Your task to perform on an android device: allow notifications from all sites in the chrome app Image 0: 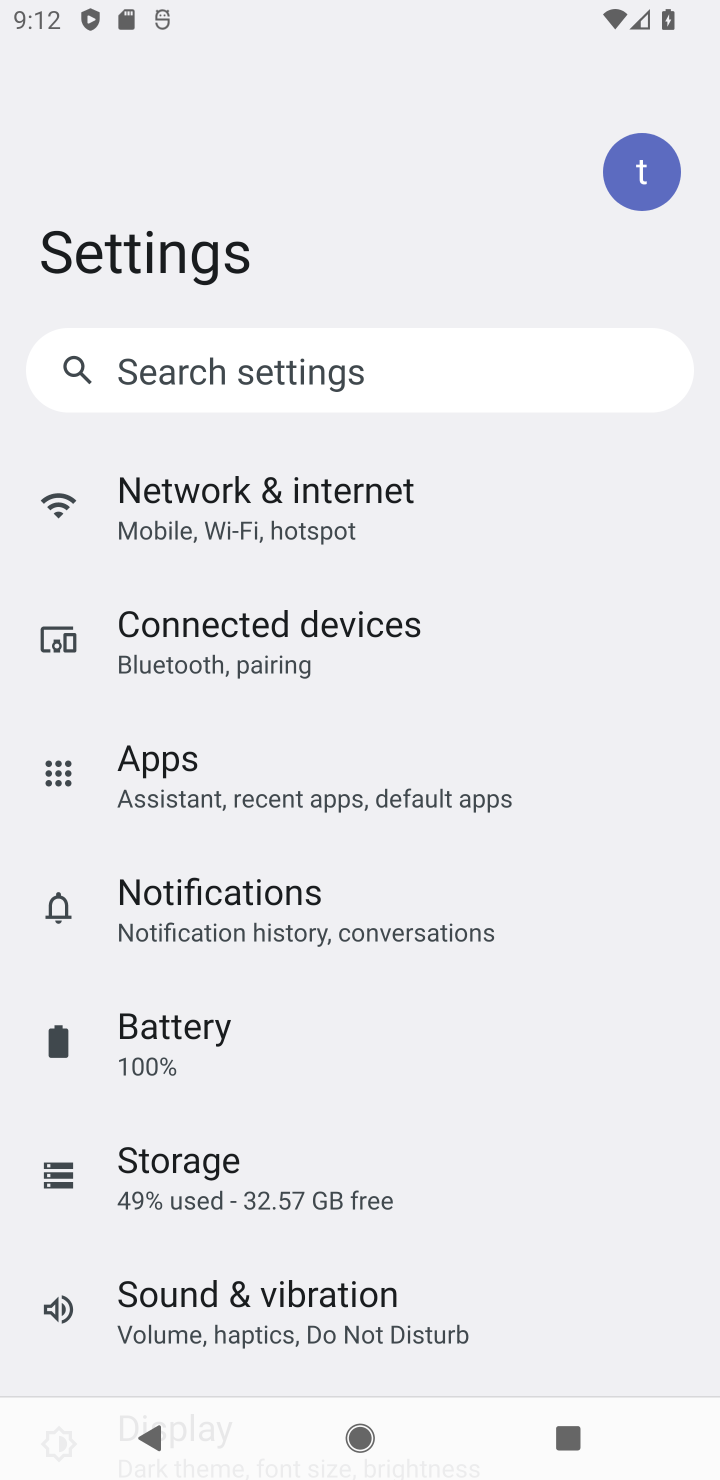
Step 0: press home button
Your task to perform on an android device: allow notifications from all sites in the chrome app Image 1: 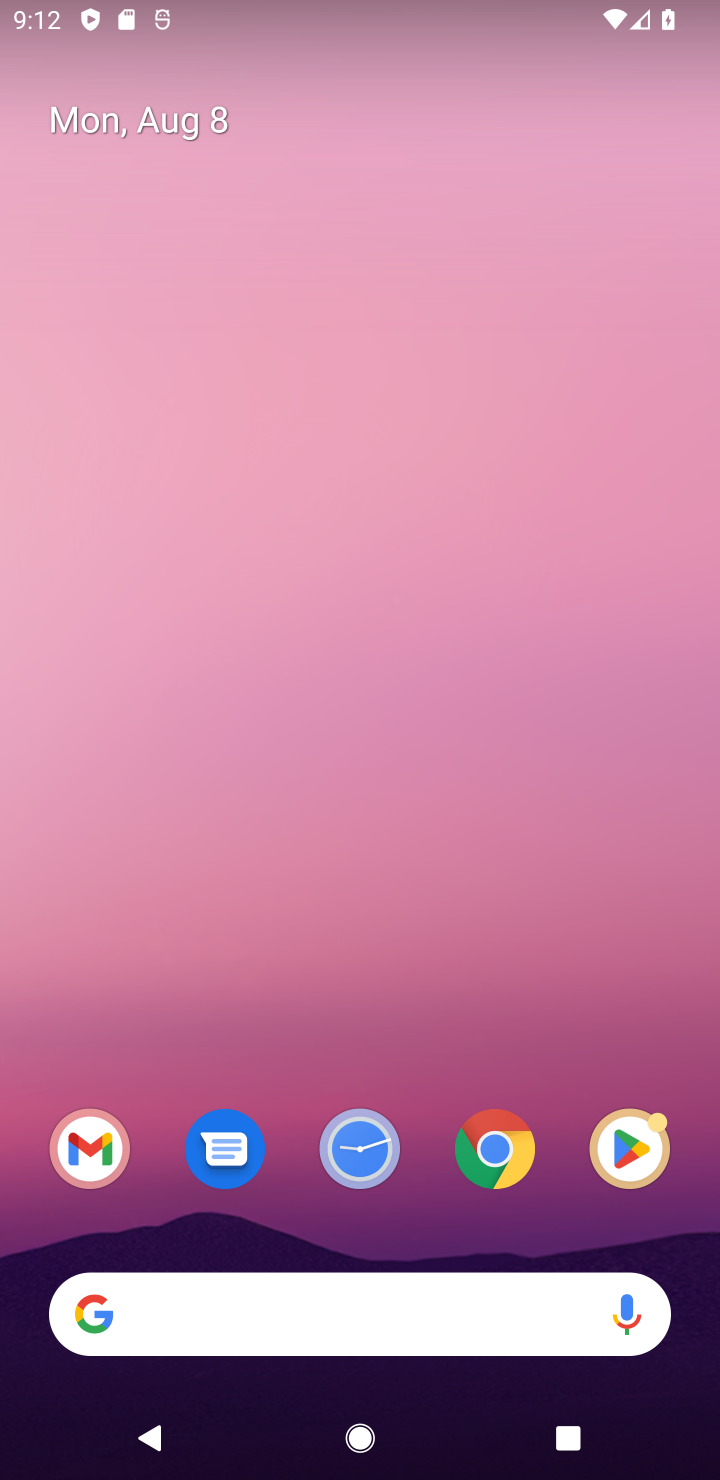
Step 1: click (506, 1150)
Your task to perform on an android device: allow notifications from all sites in the chrome app Image 2: 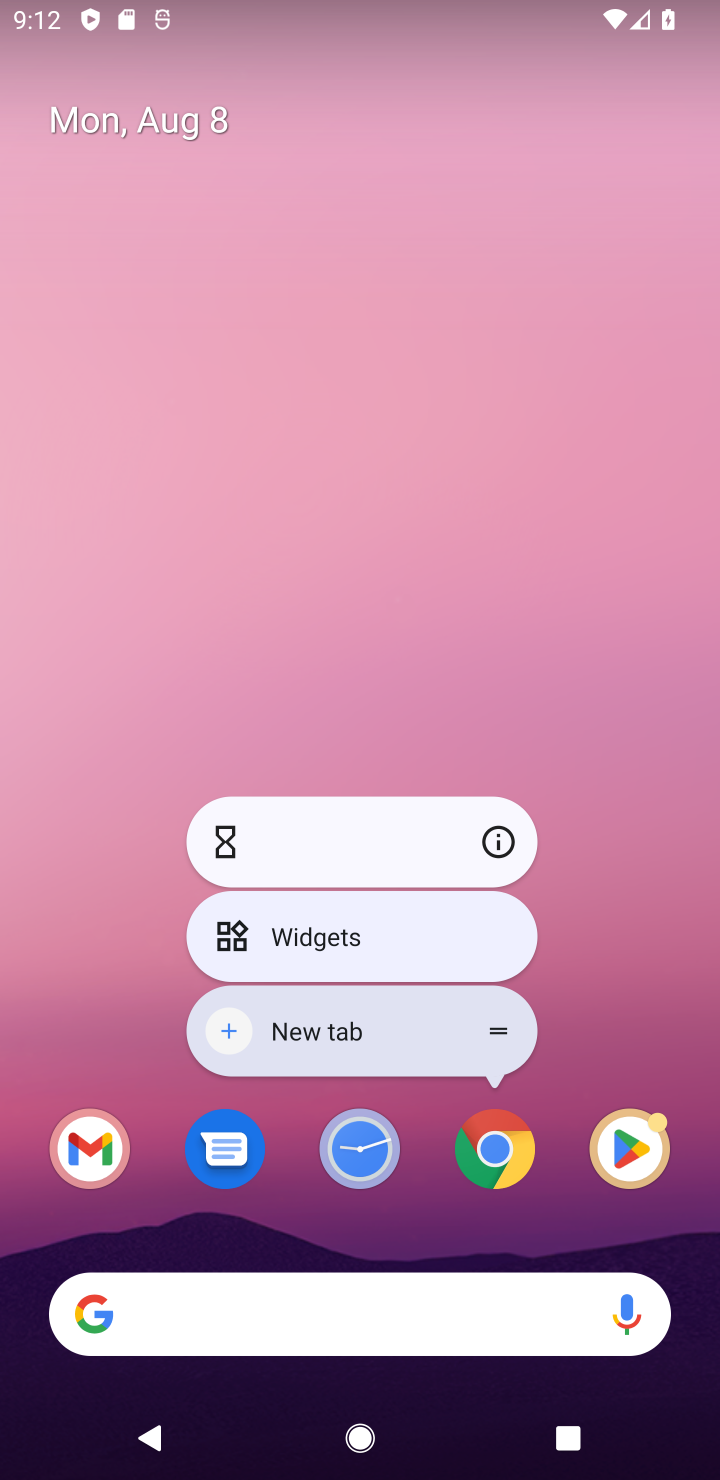
Step 2: click (504, 1148)
Your task to perform on an android device: allow notifications from all sites in the chrome app Image 3: 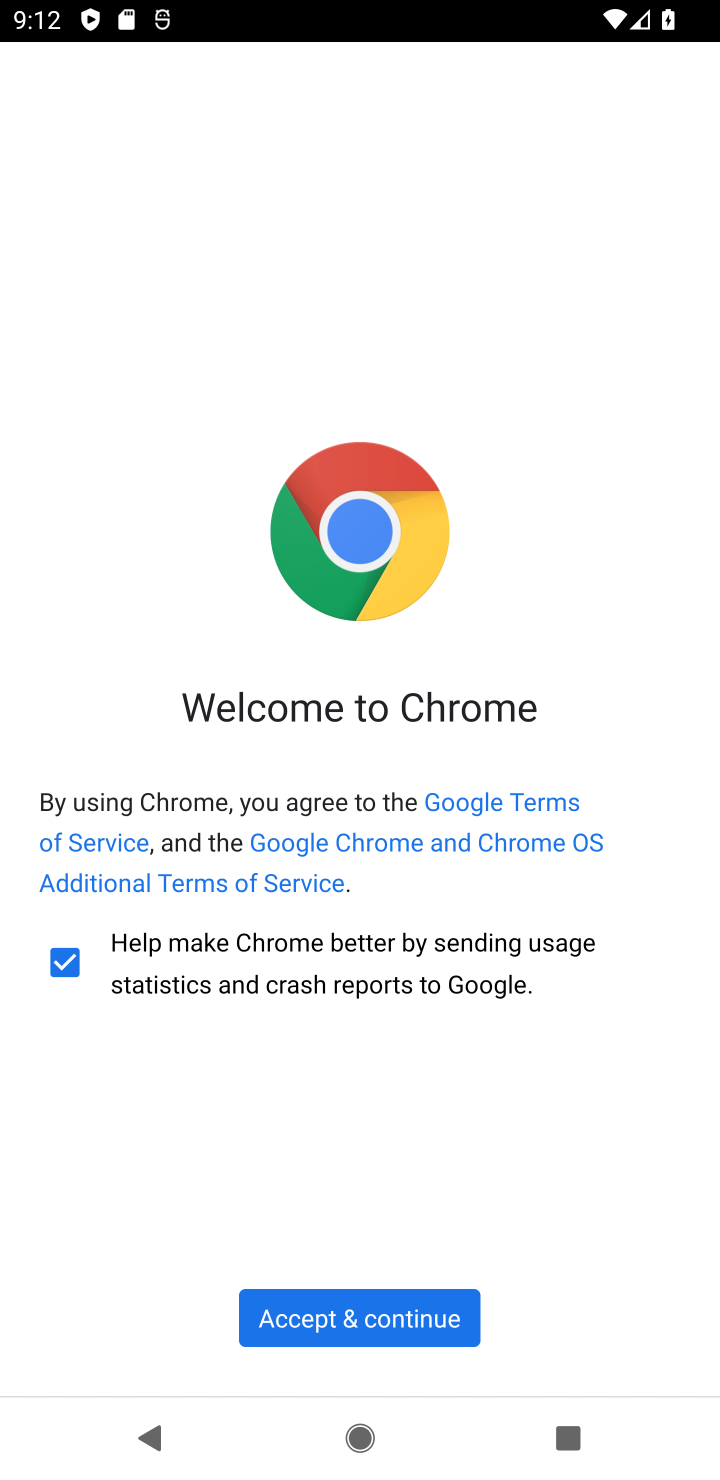
Step 3: click (364, 1307)
Your task to perform on an android device: allow notifications from all sites in the chrome app Image 4: 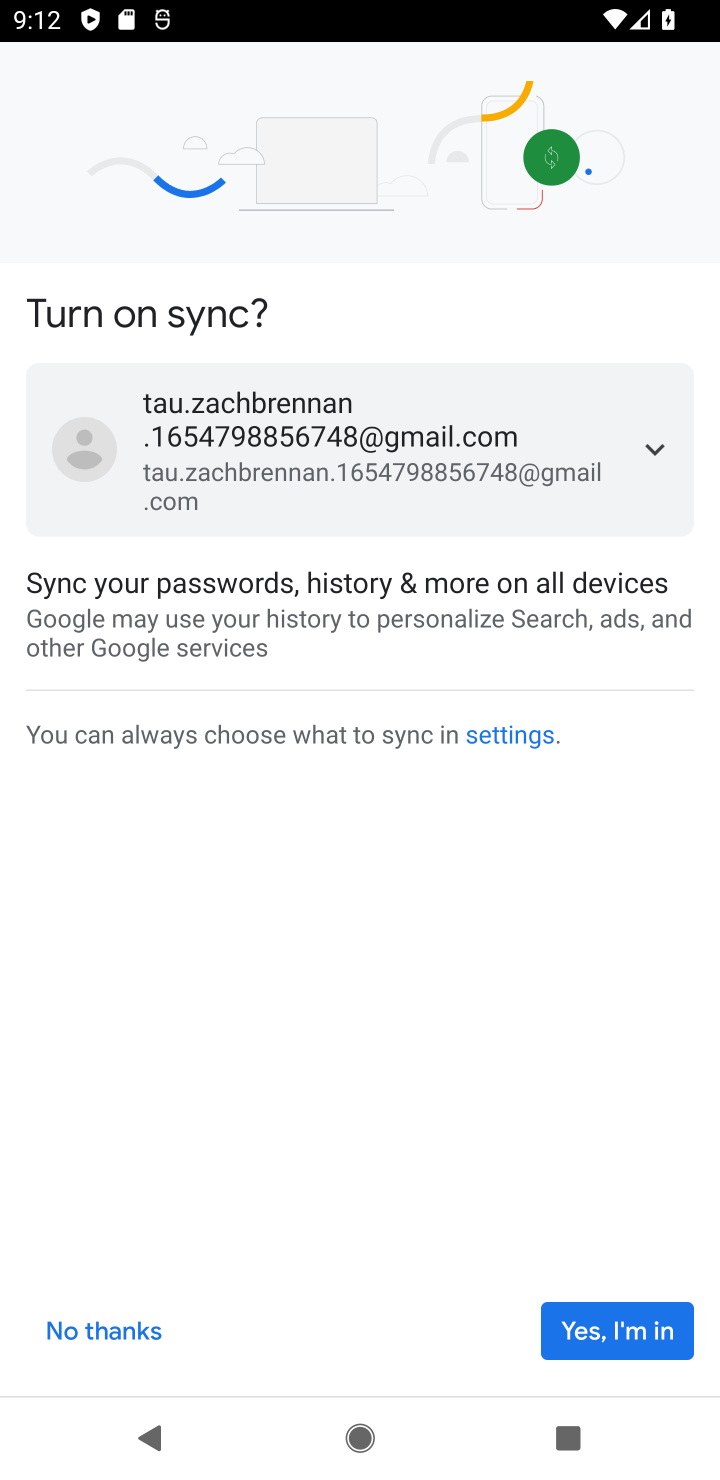
Step 4: click (617, 1320)
Your task to perform on an android device: allow notifications from all sites in the chrome app Image 5: 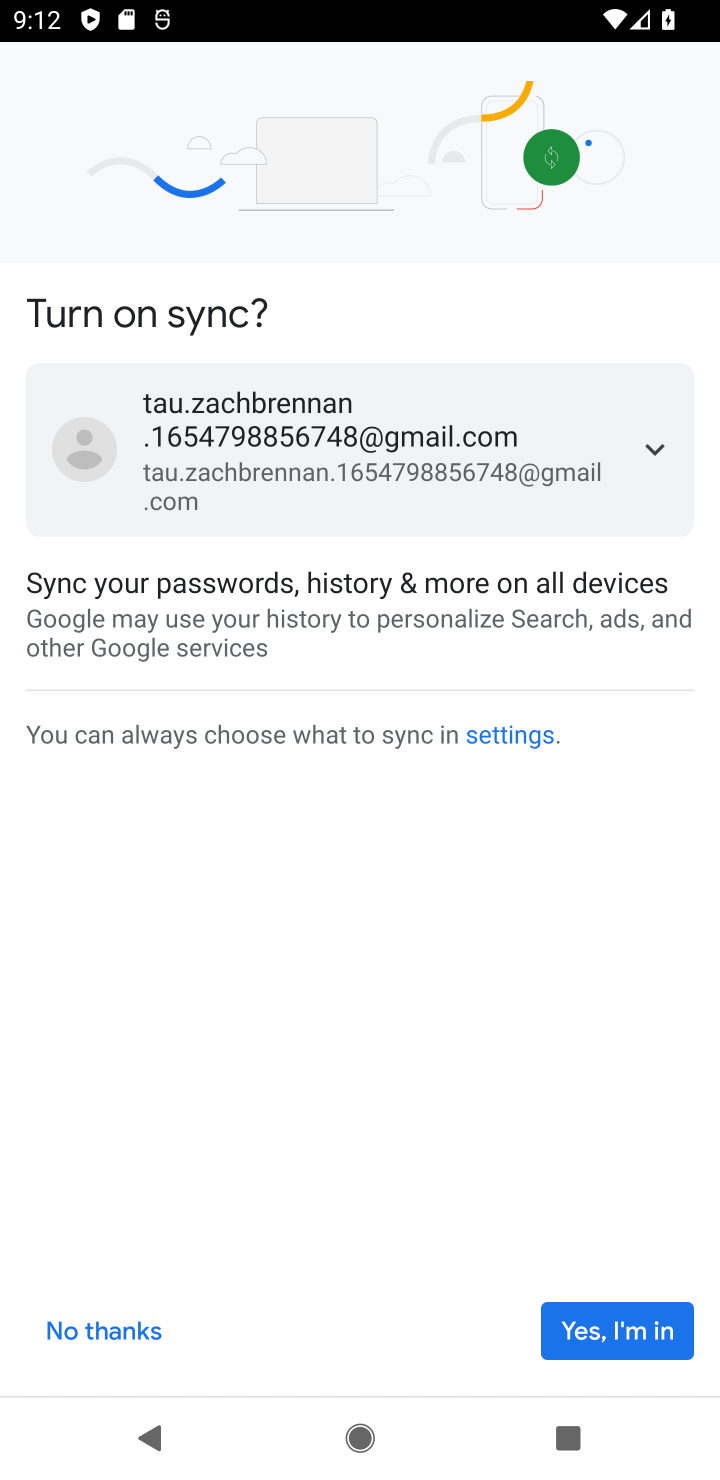
Step 5: click (573, 1323)
Your task to perform on an android device: allow notifications from all sites in the chrome app Image 6: 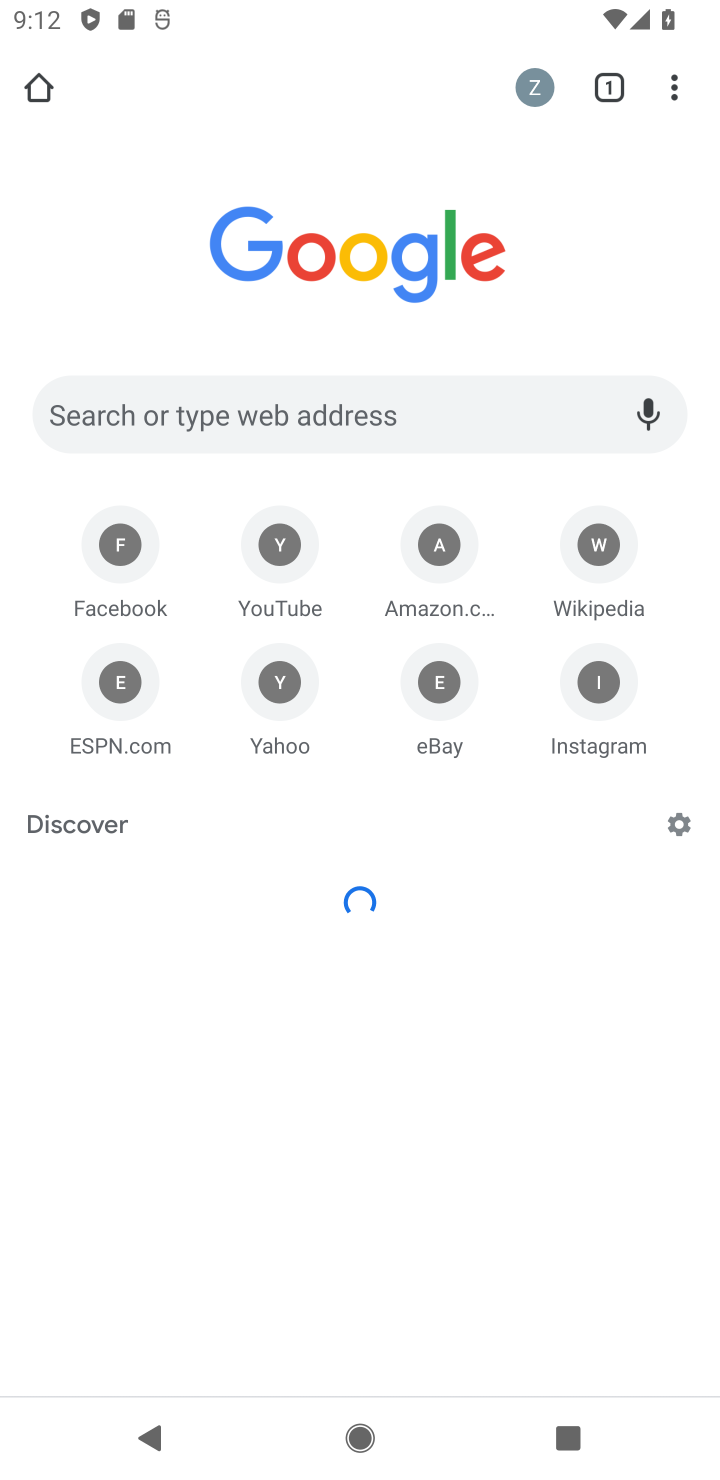
Step 6: click (681, 88)
Your task to perform on an android device: allow notifications from all sites in the chrome app Image 7: 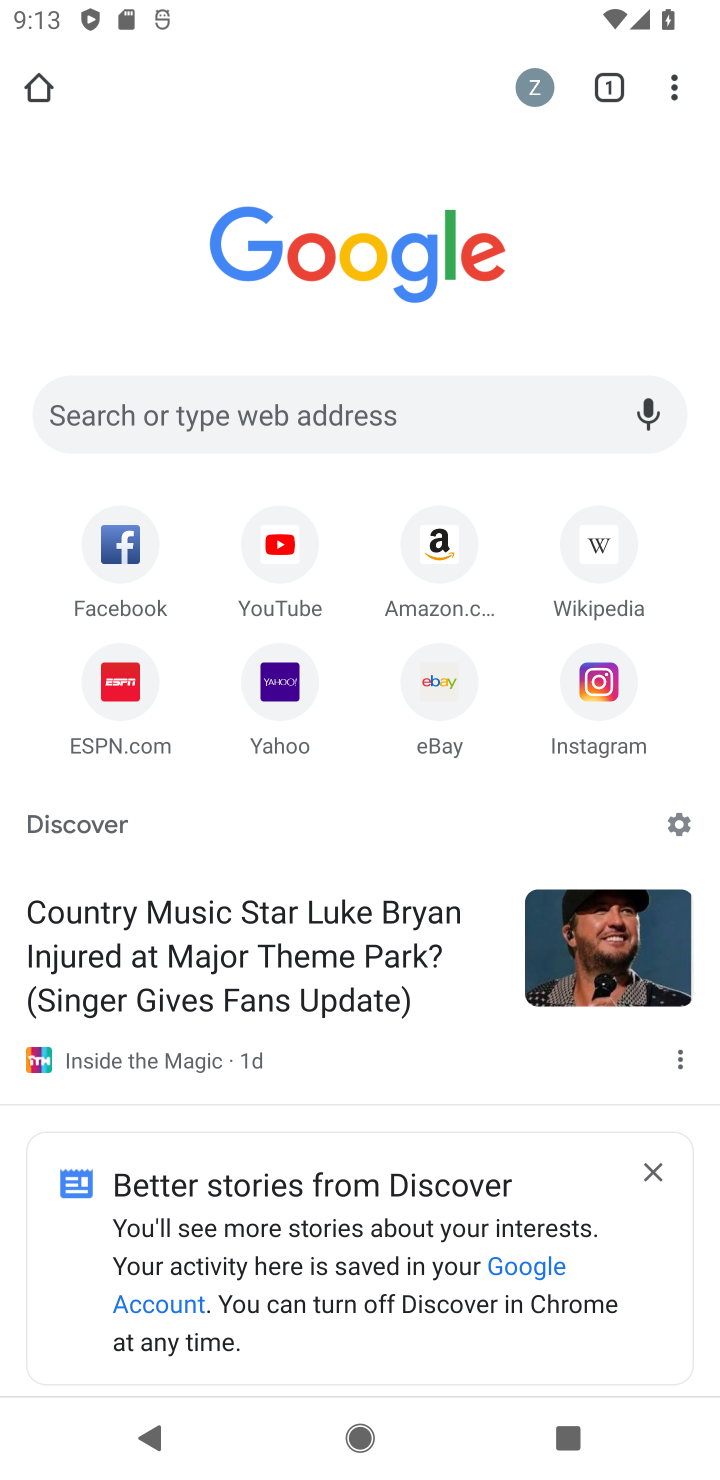
Step 7: click (667, 85)
Your task to perform on an android device: allow notifications from all sites in the chrome app Image 8: 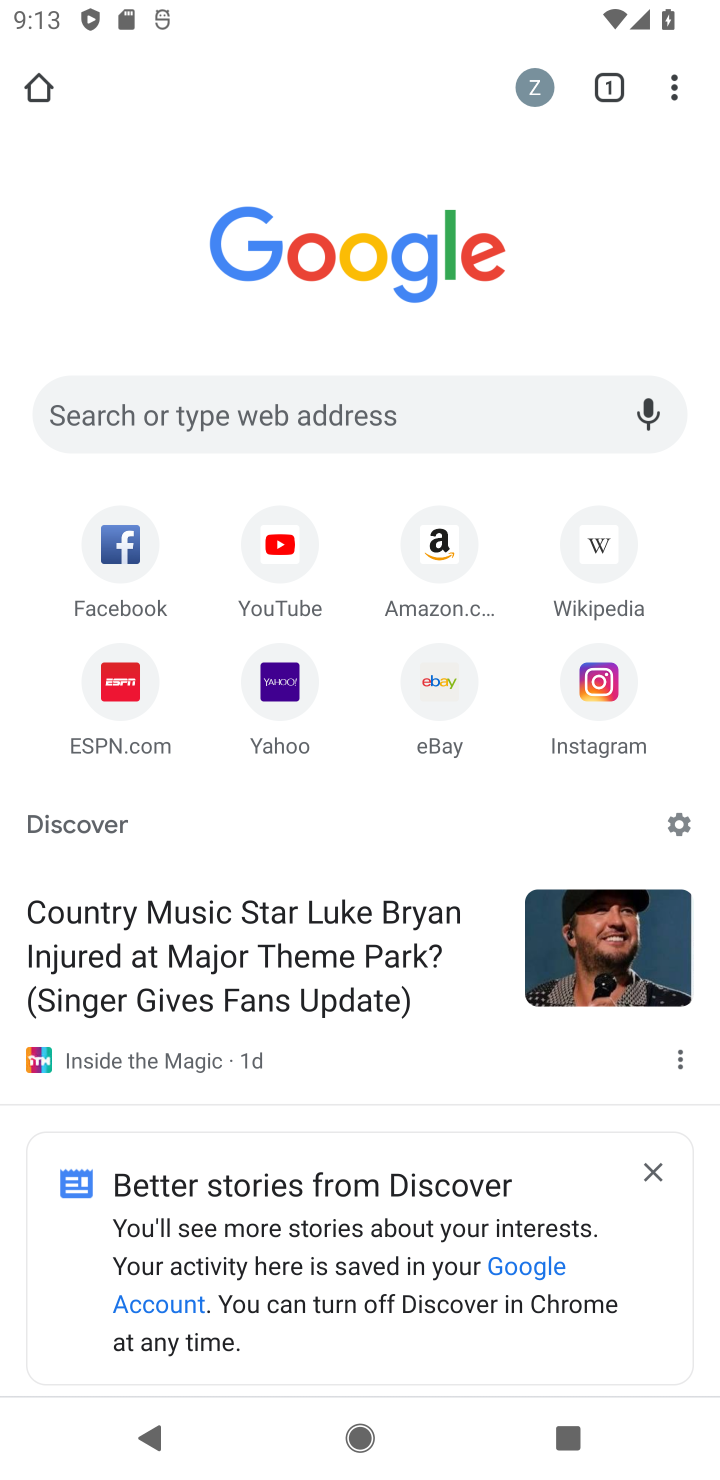
Step 8: click (673, 89)
Your task to perform on an android device: allow notifications from all sites in the chrome app Image 9: 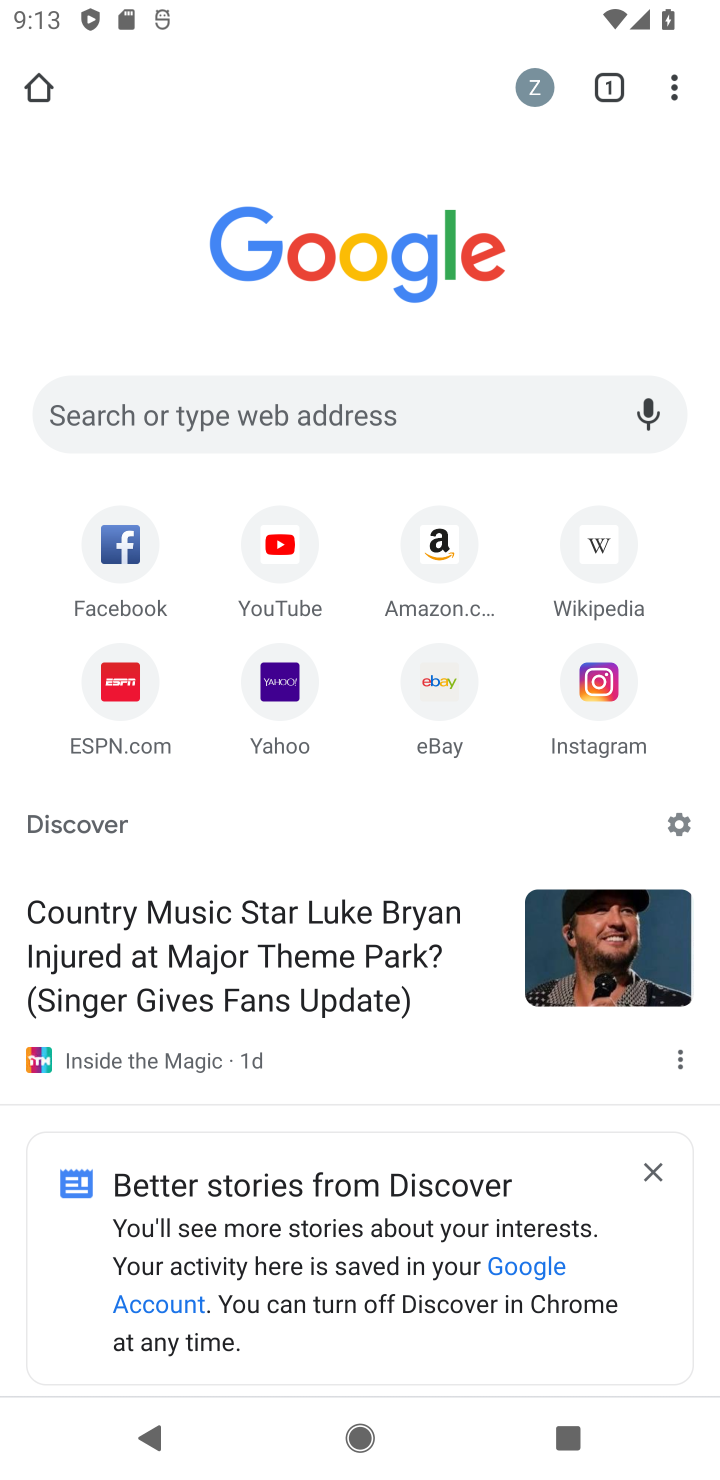
Step 9: click (657, 84)
Your task to perform on an android device: allow notifications from all sites in the chrome app Image 10: 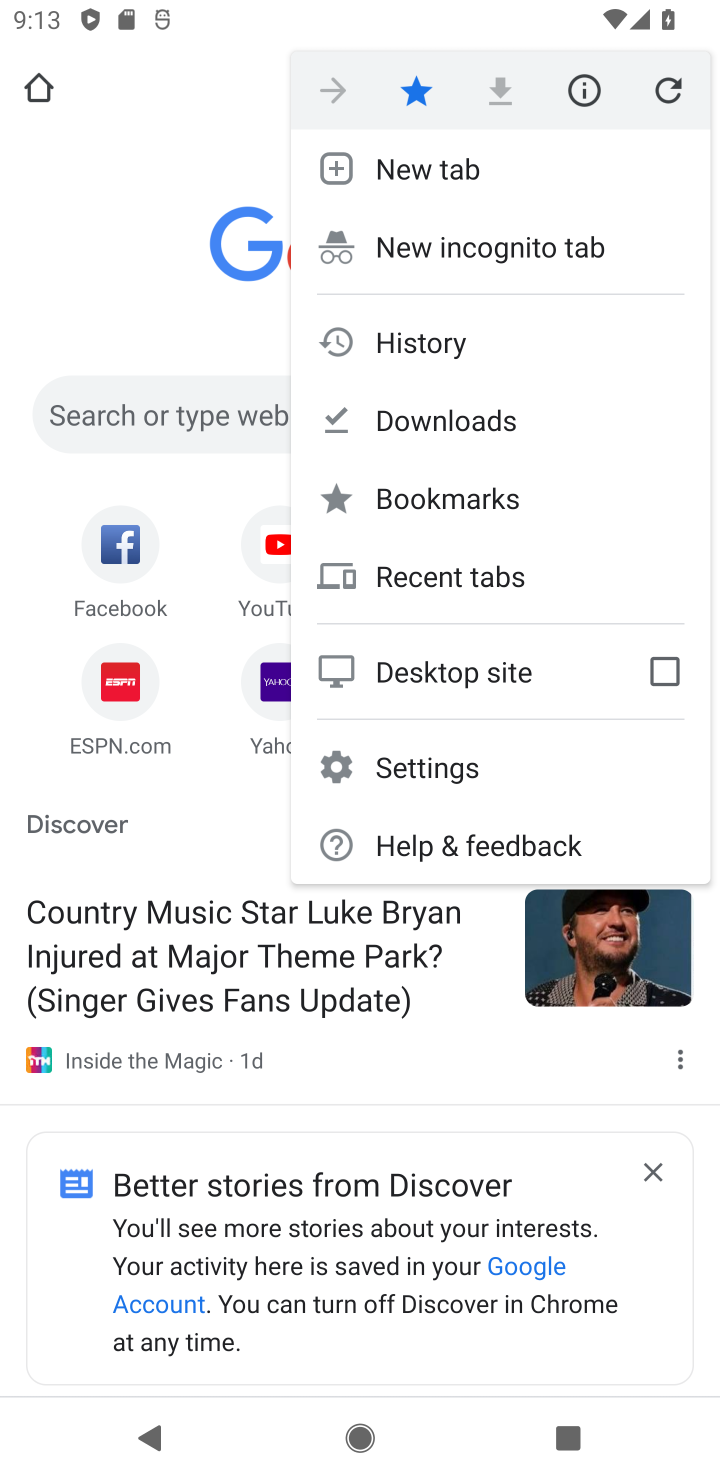
Step 10: click (437, 767)
Your task to perform on an android device: allow notifications from all sites in the chrome app Image 11: 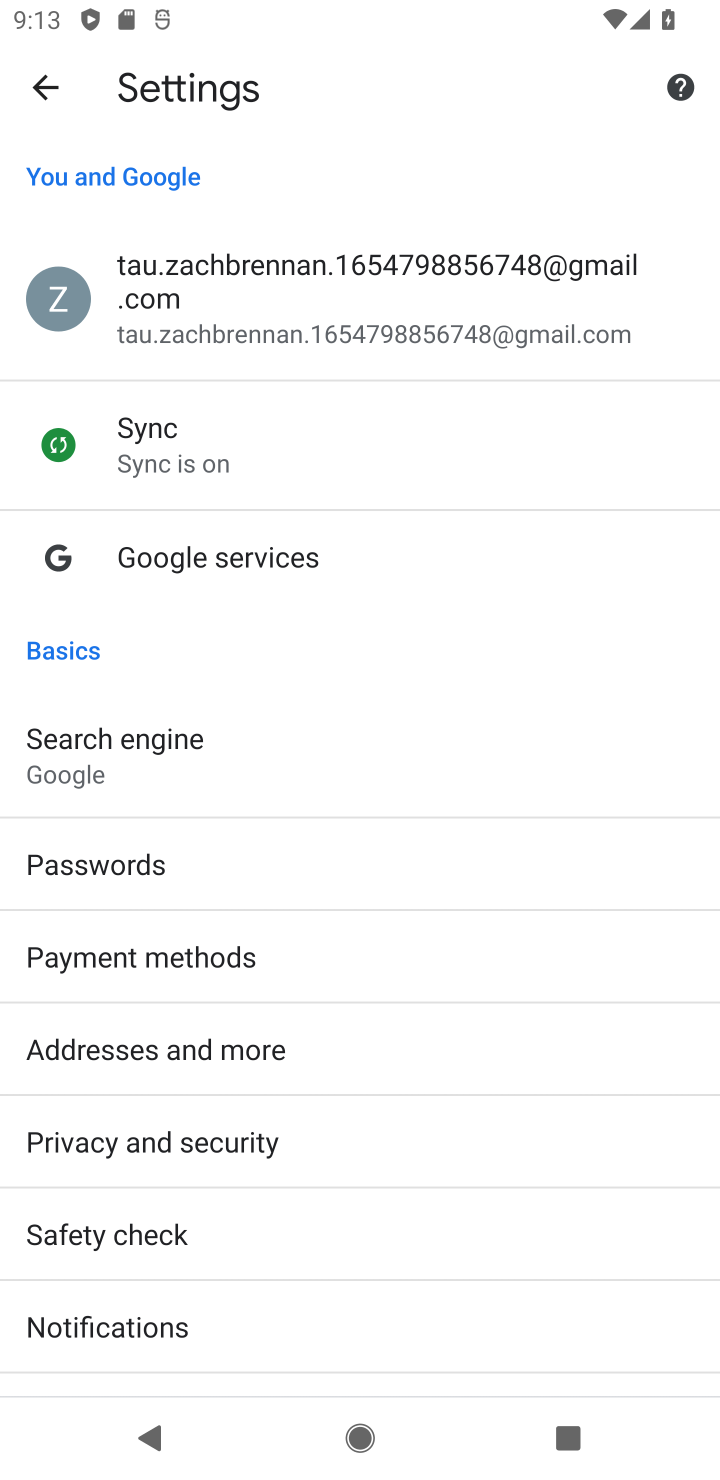
Step 11: drag from (125, 1327) to (120, 821)
Your task to perform on an android device: allow notifications from all sites in the chrome app Image 12: 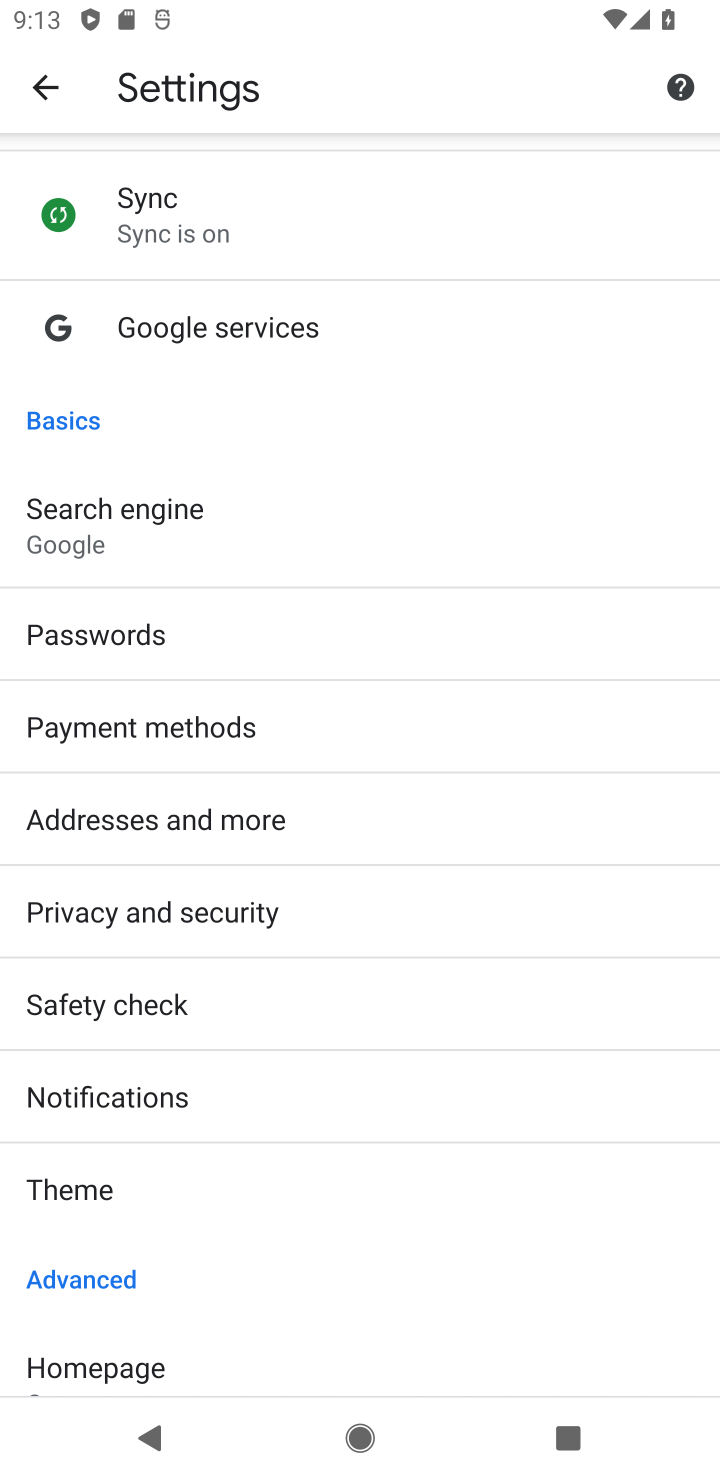
Step 12: drag from (72, 1380) to (72, 986)
Your task to perform on an android device: allow notifications from all sites in the chrome app Image 13: 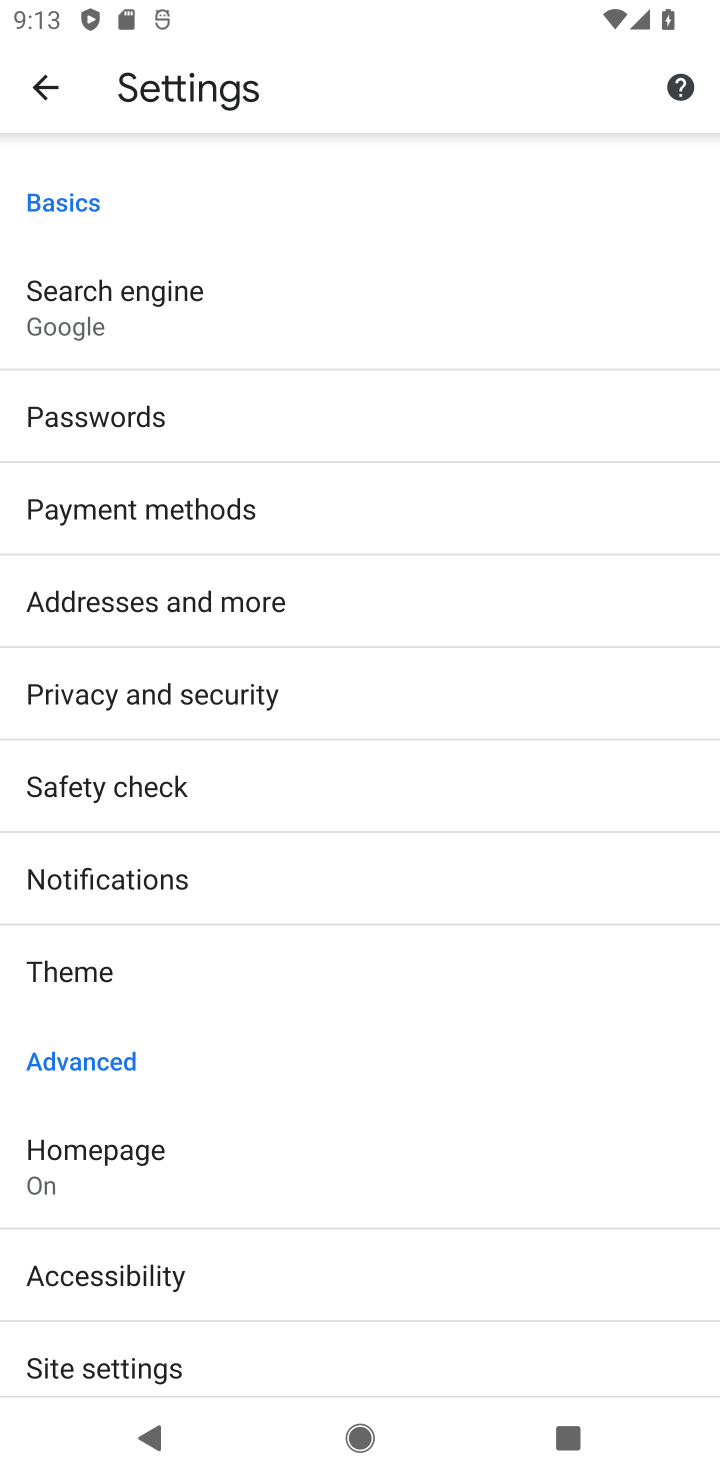
Step 13: click (109, 1374)
Your task to perform on an android device: allow notifications from all sites in the chrome app Image 14: 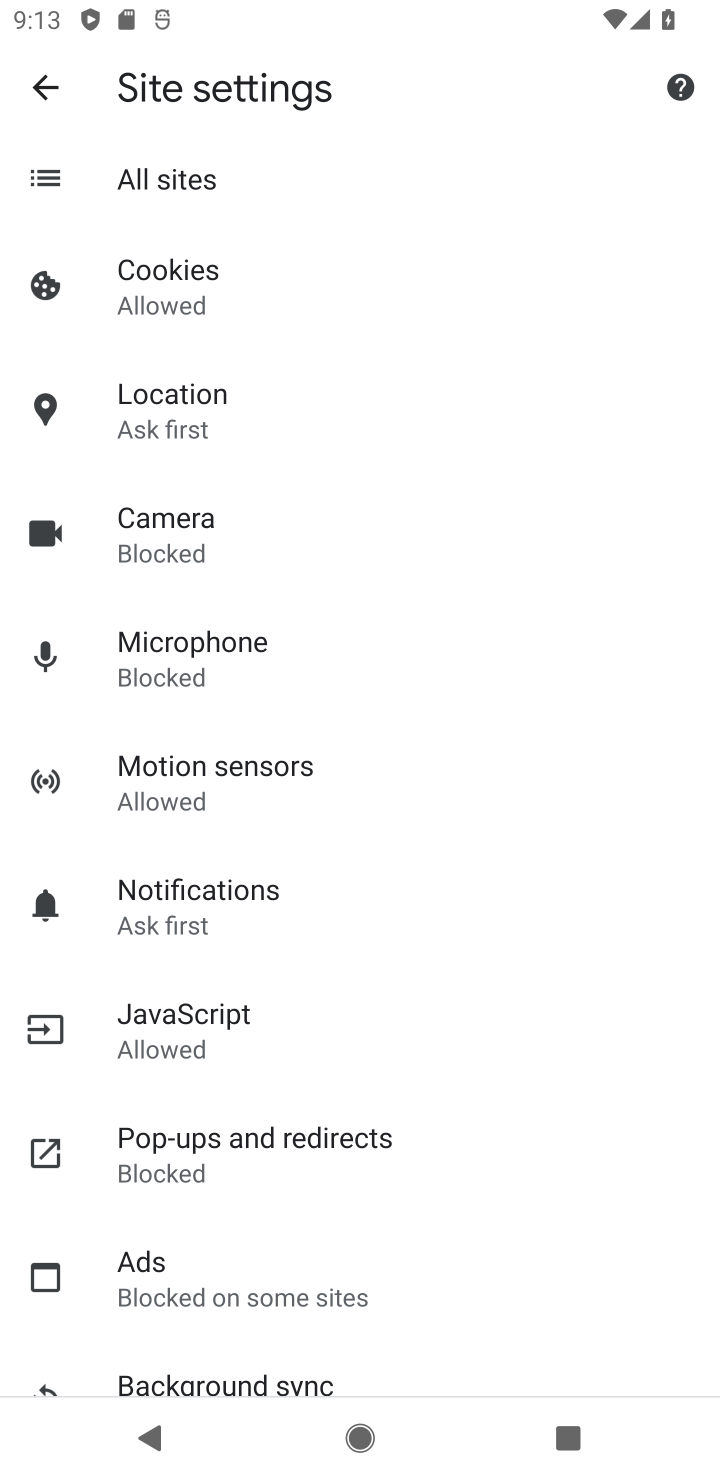
Step 14: click (230, 920)
Your task to perform on an android device: allow notifications from all sites in the chrome app Image 15: 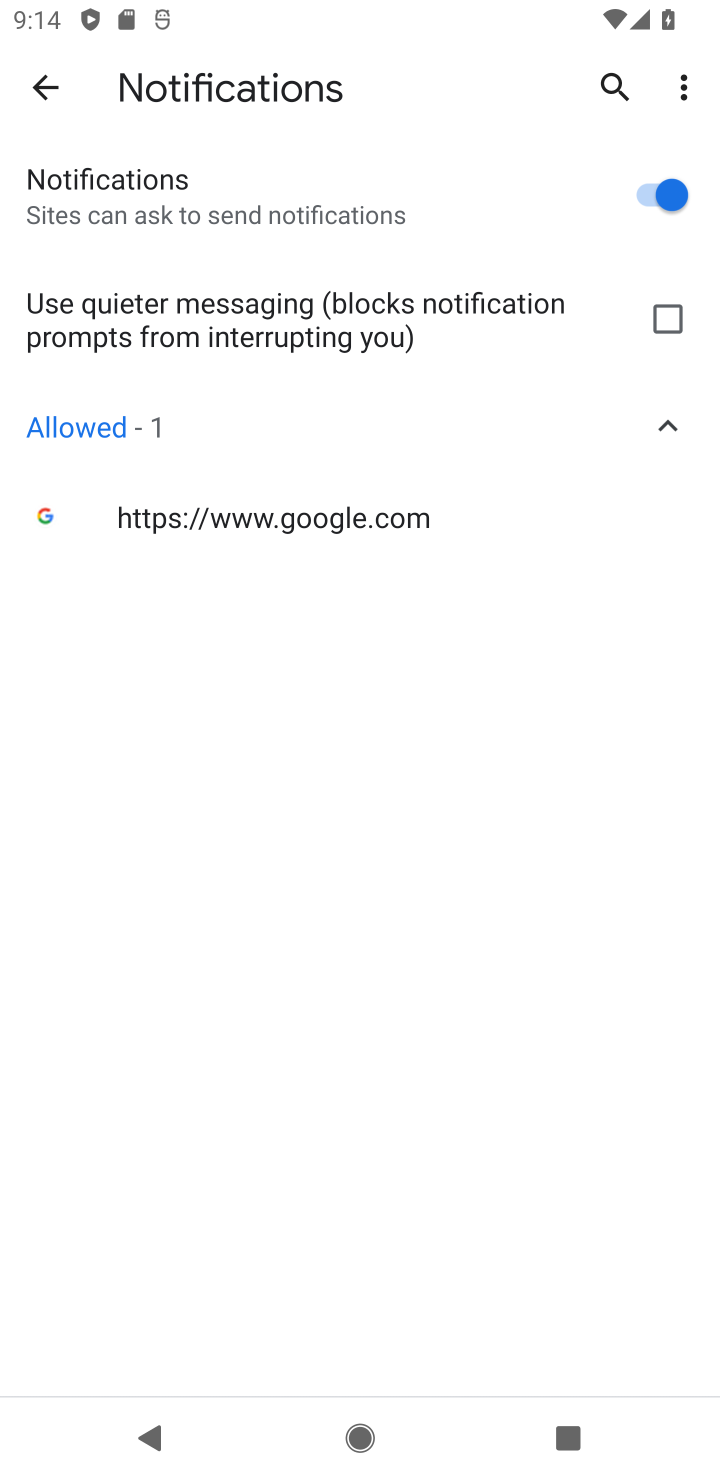
Step 15: task complete